Your task to perform on an android device: What is the speed of sound? Image 0: 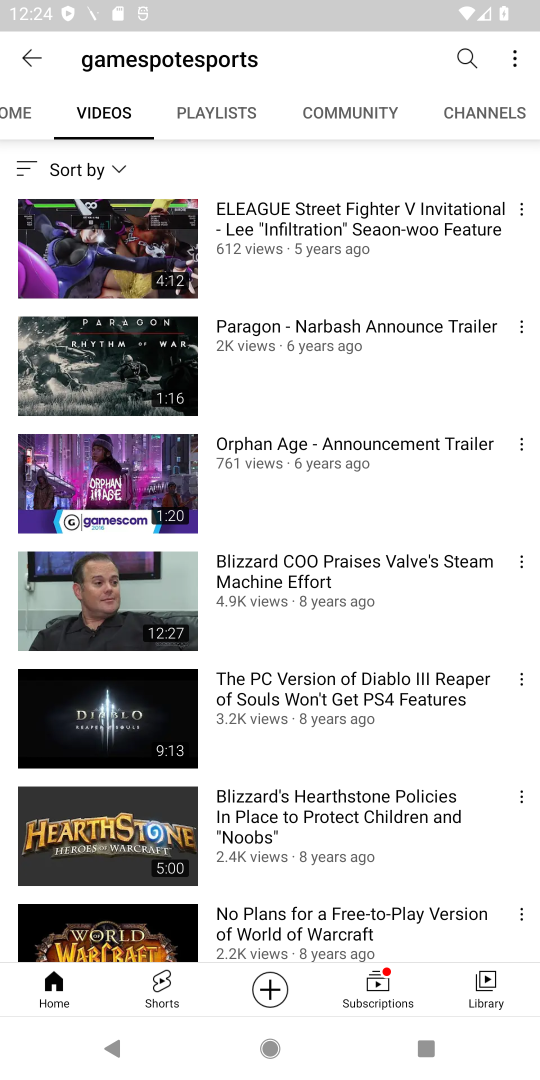
Step 0: press home button
Your task to perform on an android device: What is the speed of sound? Image 1: 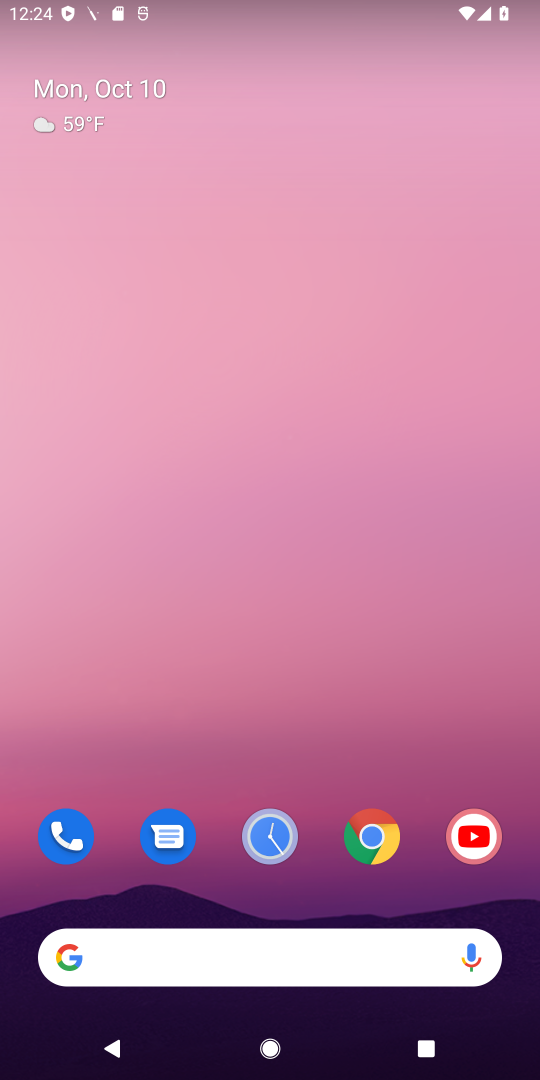
Step 1: click (365, 840)
Your task to perform on an android device: What is the speed of sound? Image 2: 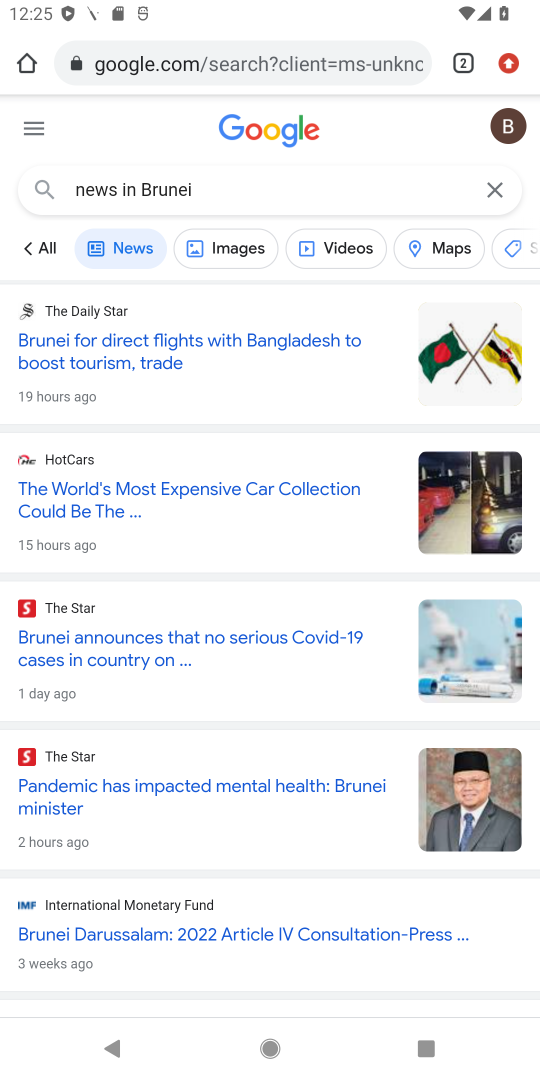
Step 2: click (241, 57)
Your task to perform on an android device: What is the speed of sound? Image 3: 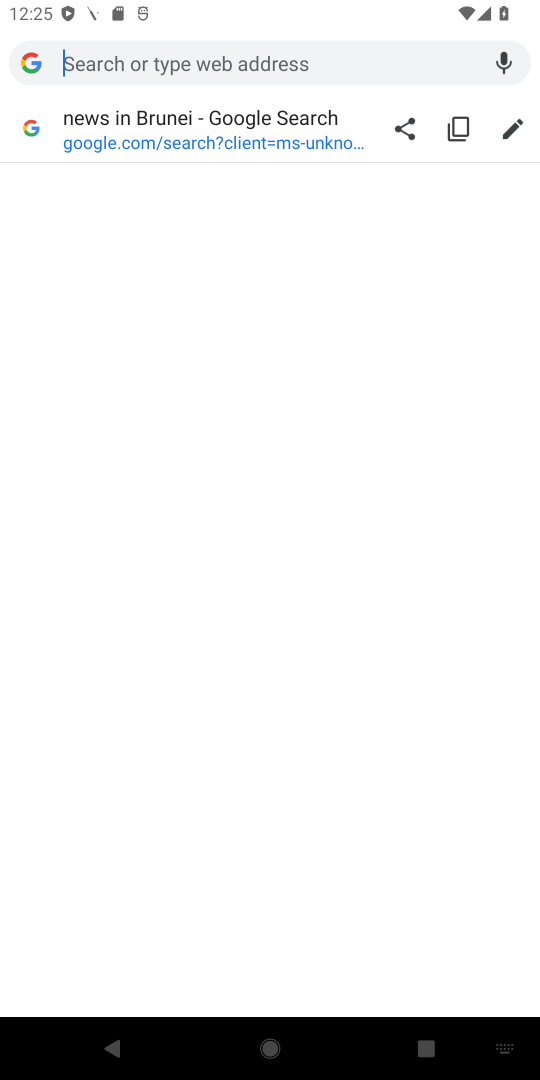
Step 3: type " speed of sound"
Your task to perform on an android device: What is the speed of sound? Image 4: 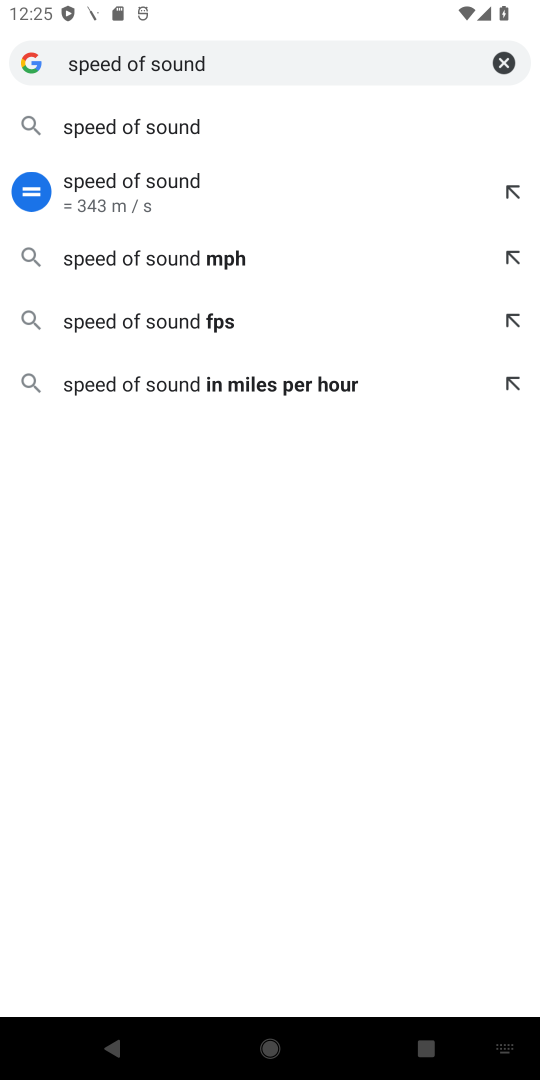
Step 4: click (232, 196)
Your task to perform on an android device: What is the speed of sound? Image 5: 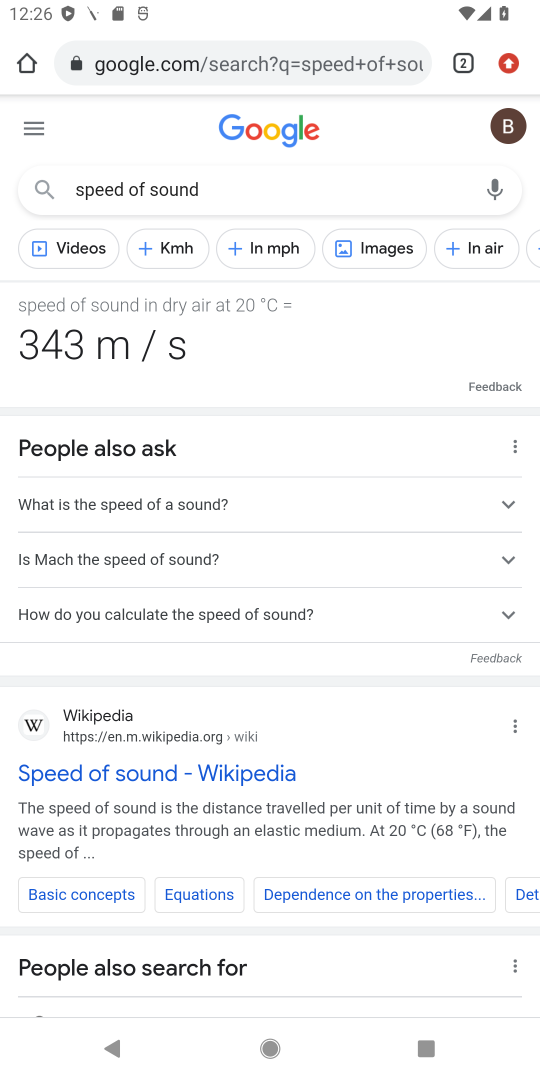
Step 5: task complete